Your task to perform on an android device: What's the news in Colombia? Image 0: 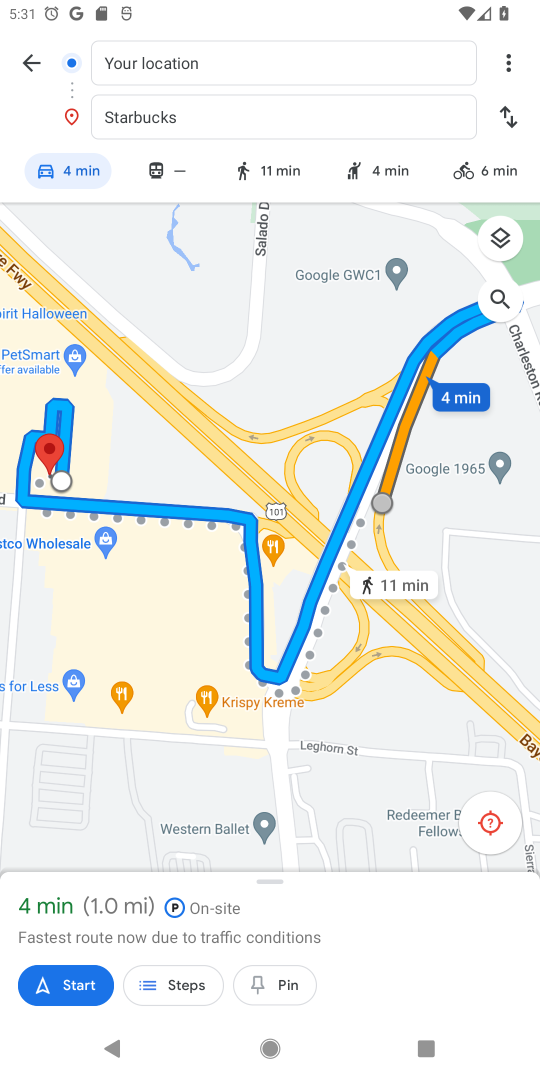
Step 0: press home button
Your task to perform on an android device: What's the news in Colombia? Image 1: 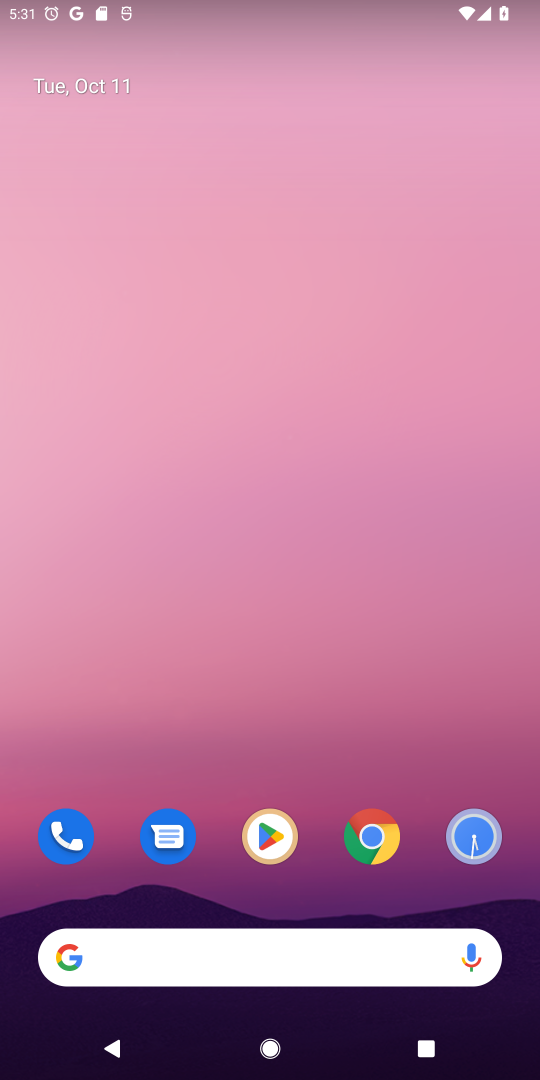
Step 1: click (227, 921)
Your task to perform on an android device: What's the news in Colombia? Image 2: 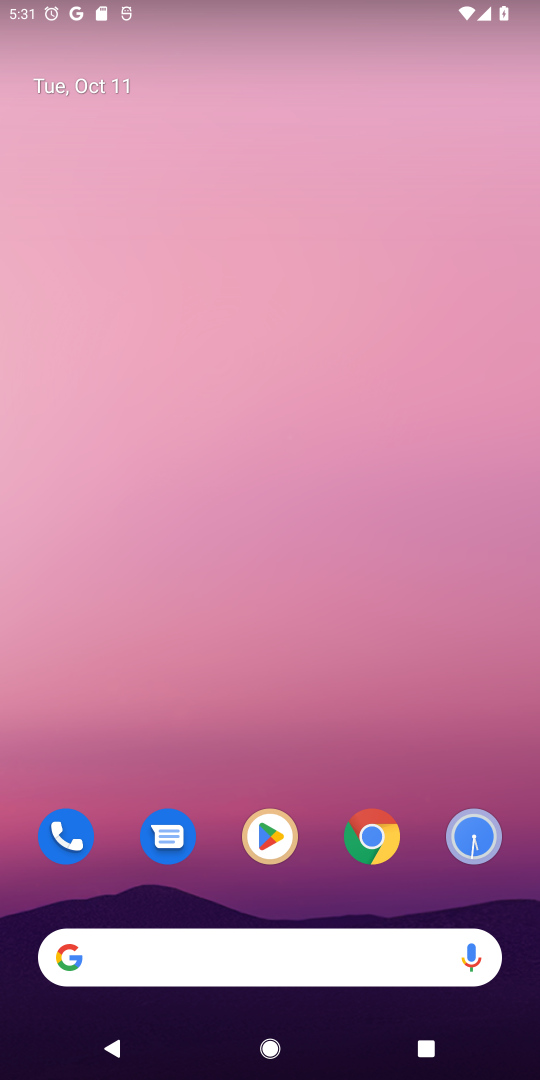
Step 2: type "What's the news in Colombia?"
Your task to perform on an android device: What's the news in Colombia? Image 3: 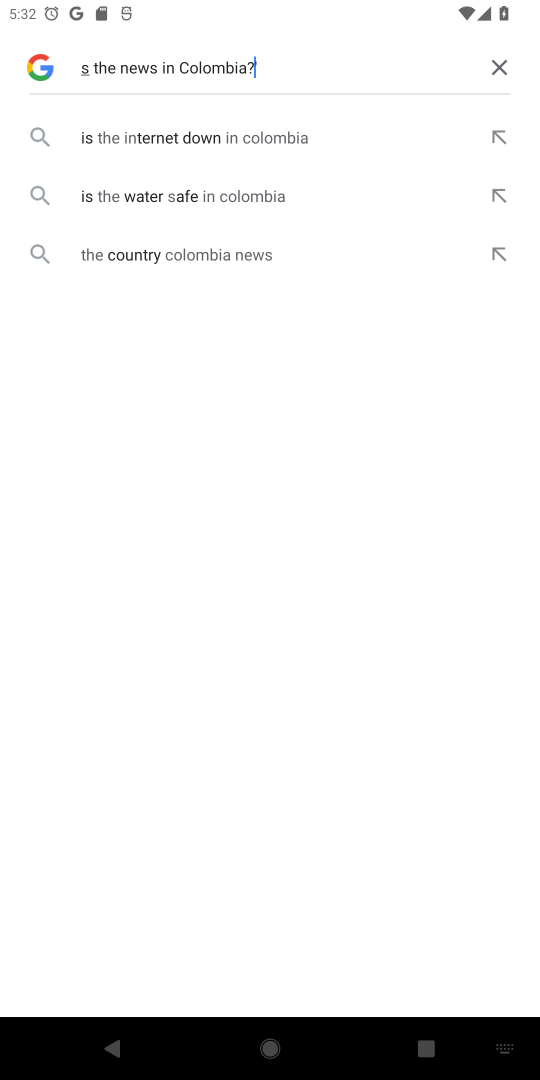
Step 3: click (314, 128)
Your task to perform on an android device: What's the news in Colombia? Image 4: 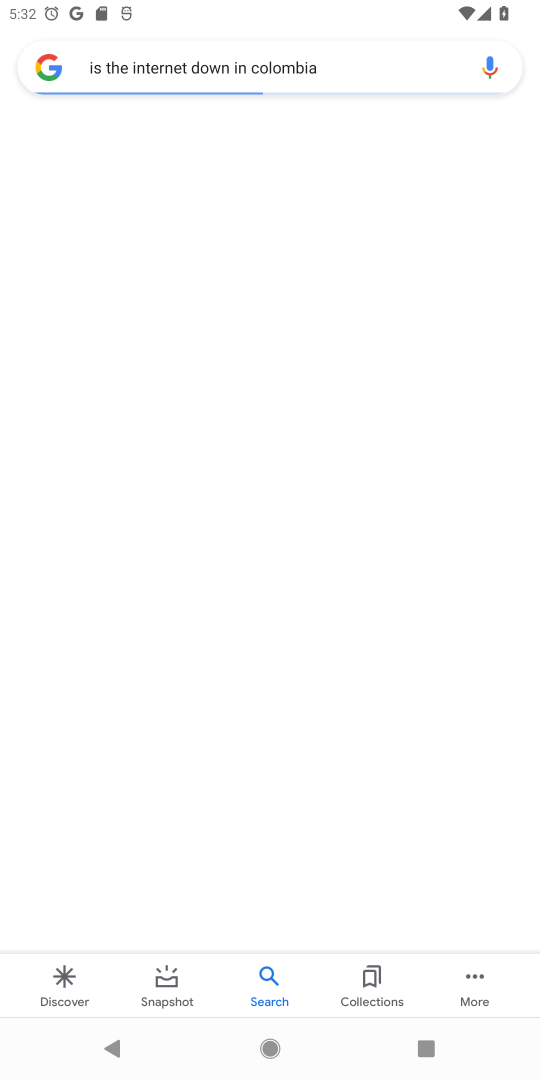
Step 4: task complete